Your task to perform on an android device: Open accessibility settings Image 0: 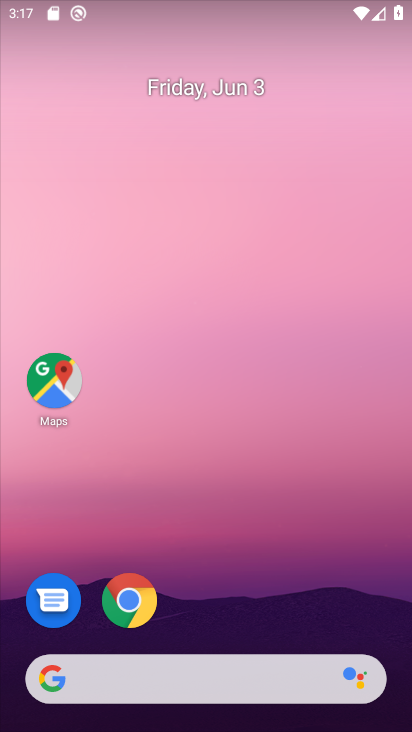
Step 0: drag from (311, 565) to (260, 114)
Your task to perform on an android device: Open accessibility settings Image 1: 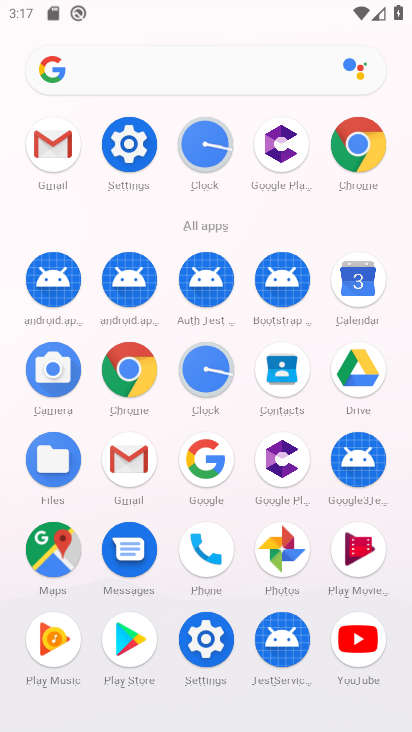
Step 1: click (120, 137)
Your task to perform on an android device: Open accessibility settings Image 2: 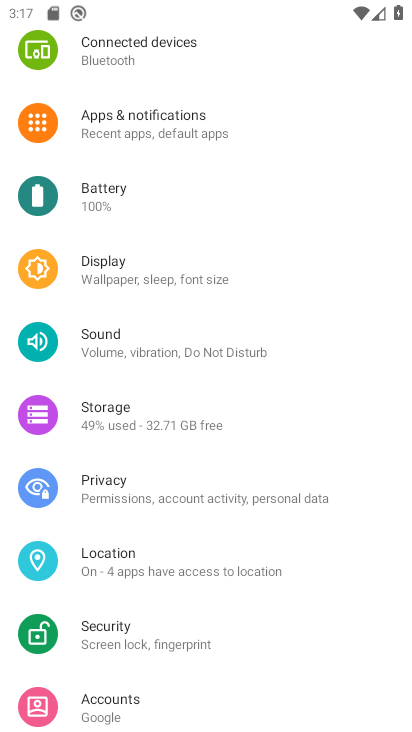
Step 2: drag from (196, 605) to (201, 252)
Your task to perform on an android device: Open accessibility settings Image 3: 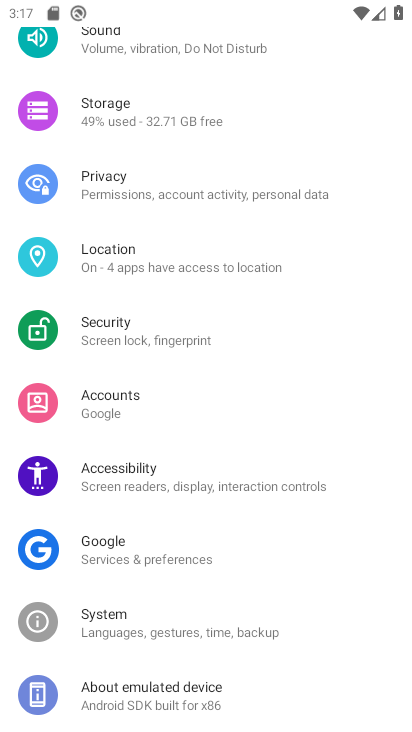
Step 3: click (189, 488)
Your task to perform on an android device: Open accessibility settings Image 4: 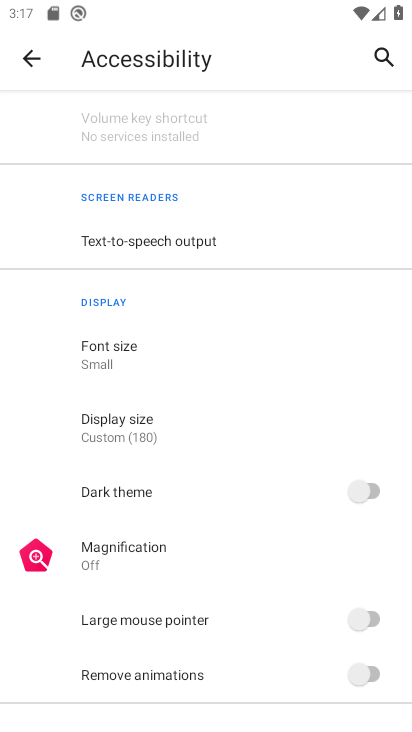
Step 4: task complete